Your task to perform on an android device: turn on showing notifications on the lock screen Image 0: 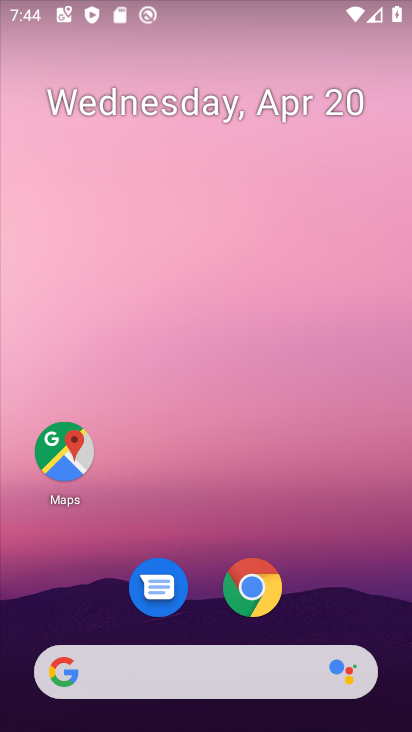
Step 0: drag from (368, 587) to (344, 186)
Your task to perform on an android device: turn on showing notifications on the lock screen Image 1: 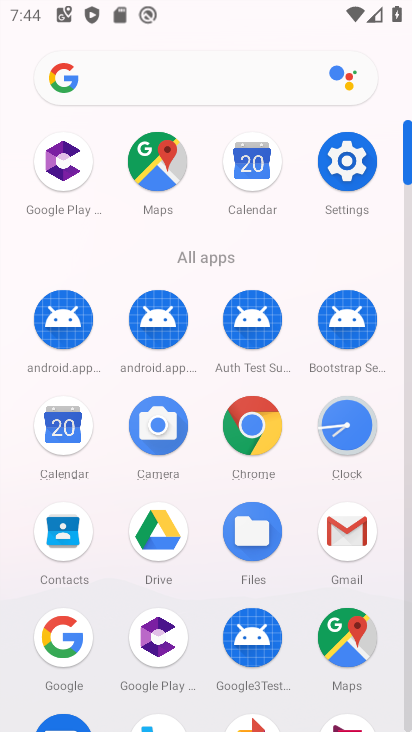
Step 1: click (354, 174)
Your task to perform on an android device: turn on showing notifications on the lock screen Image 2: 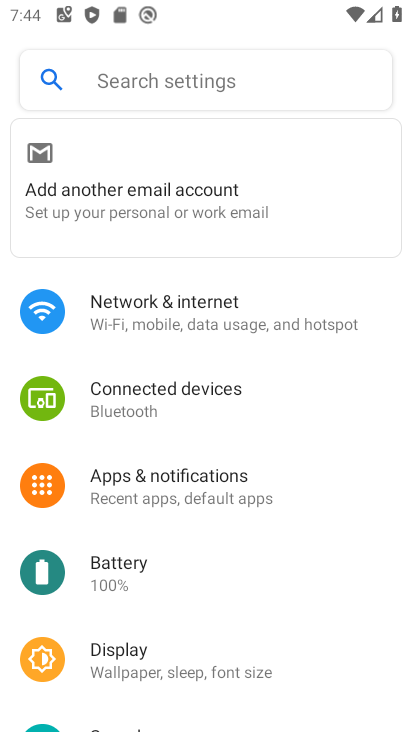
Step 2: drag from (334, 599) to (332, 428)
Your task to perform on an android device: turn on showing notifications on the lock screen Image 3: 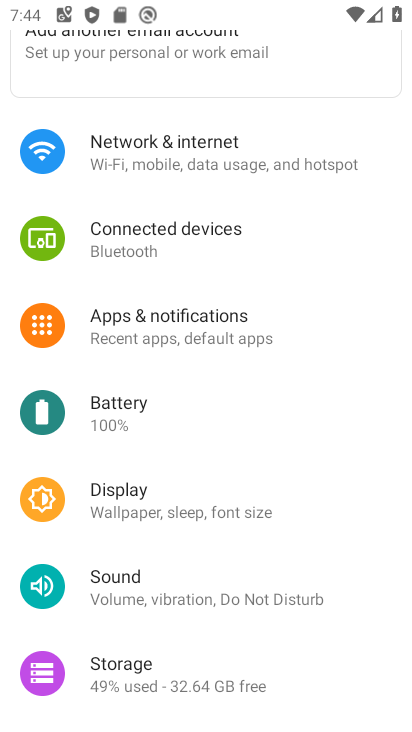
Step 3: drag from (348, 636) to (363, 436)
Your task to perform on an android device: turn on showing notifications on the lock screen Image 4: 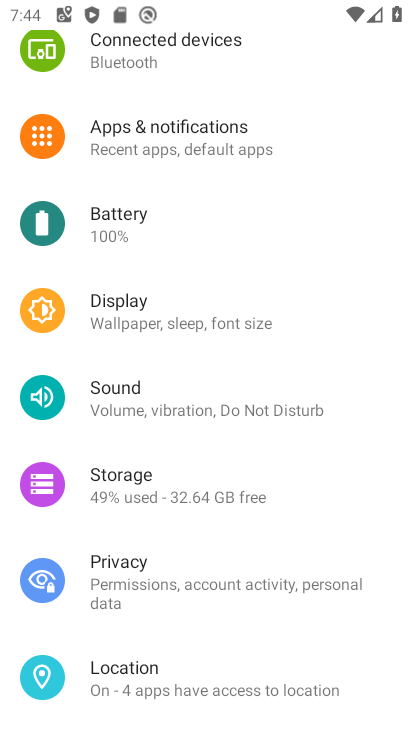
Step 4: drag from (371, 633) to (362, 425)
Your task to perform on an android device: turn on showing notifications on the lock screen Image 5: 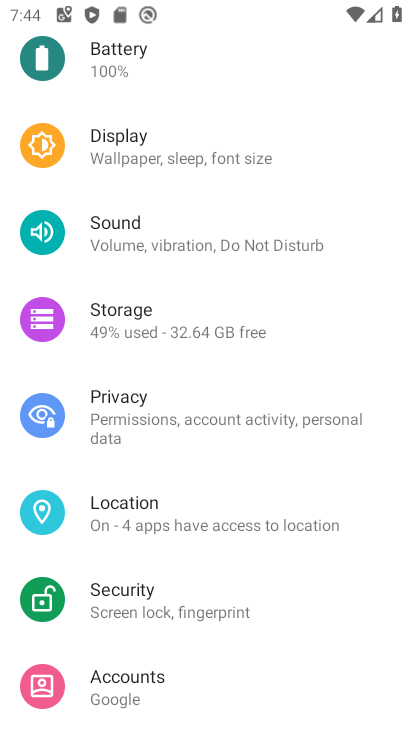
Step 5: drag from (337, 630) to (349, 432)
Your task to perform on an android device: turn on showing notifications on the lock screen Image 6: 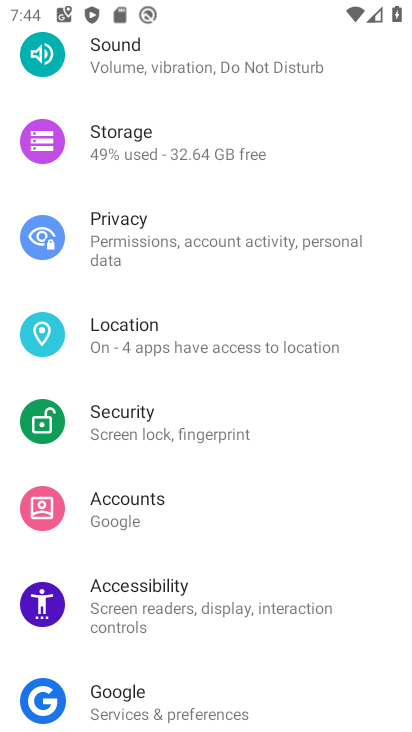
Step 6: drag from (357, 649) to (367, 476)
Your task to perform on an android device: turn on showing notifications on the lock screen Image 7: 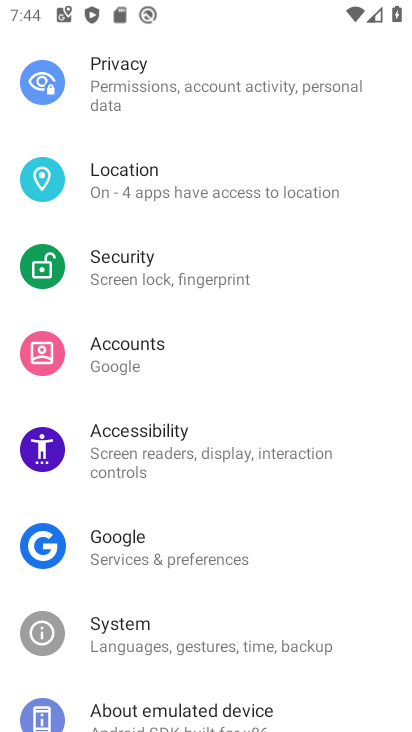
Step 7: drag from (374, 677) to (385, 451)
Your task to perform on an android device: turn on showing notifications on the lock screen Image 8: 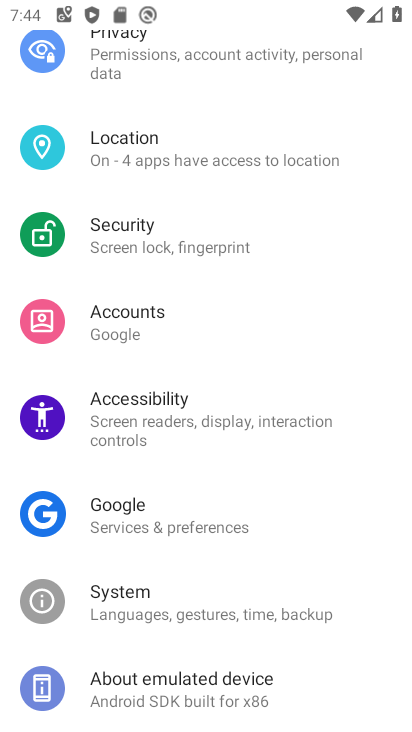
Step 8: drag from (383, 260) to (381, 445)
Your task to perform on an android device: turn on showing notifications on the lock screen Image 9: 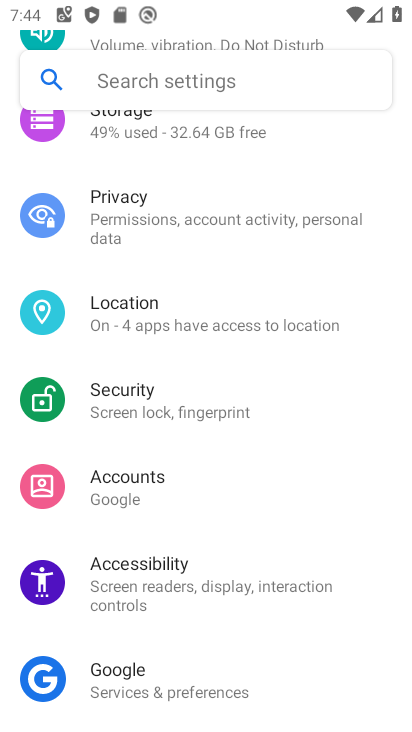
Step 9: drag from (379, 182) to (364, 405)
Your task to perform on an android device: turn on showing notifications on the lock screen Image 10: 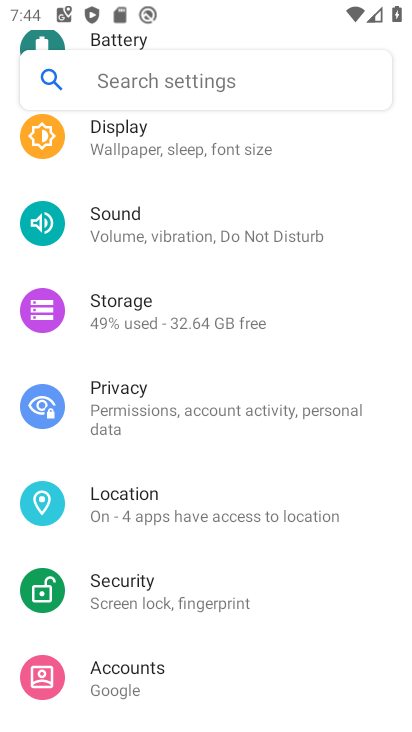
Step 10: drag from (359, 175) to (355, 395)
Your task to perform on an android device: turn on showing notifications on the lock screen Image 11: 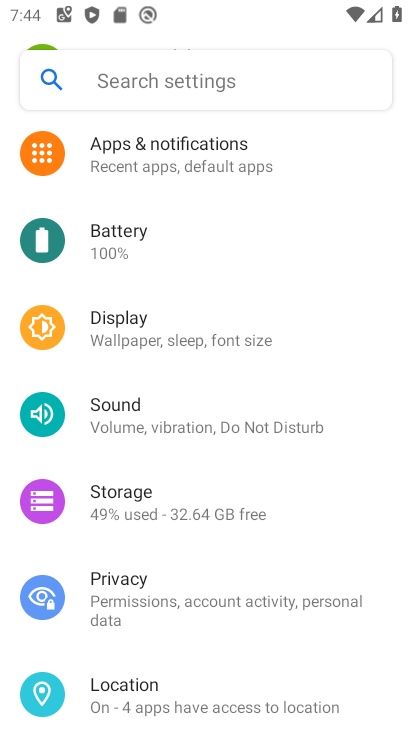
Step 11: drag from (373, 201) to (376, 355)
Your task to perform on an android device: turn on showing notifications on the lock screen Image 12: 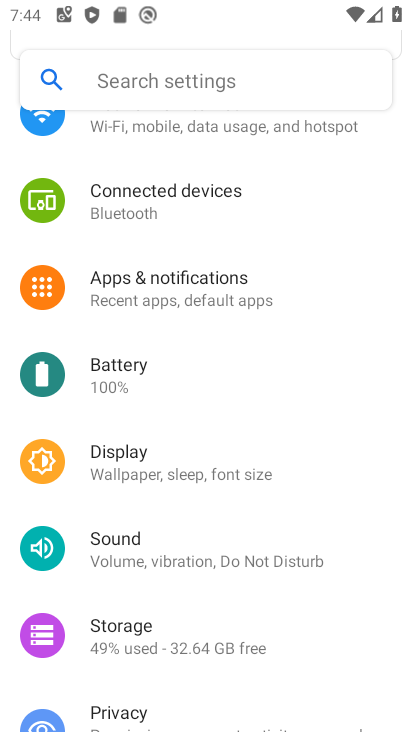
Step 12: click (224, 290)
Your task to perform on an android device: turn on showing notifications on the lock screen Image 13: 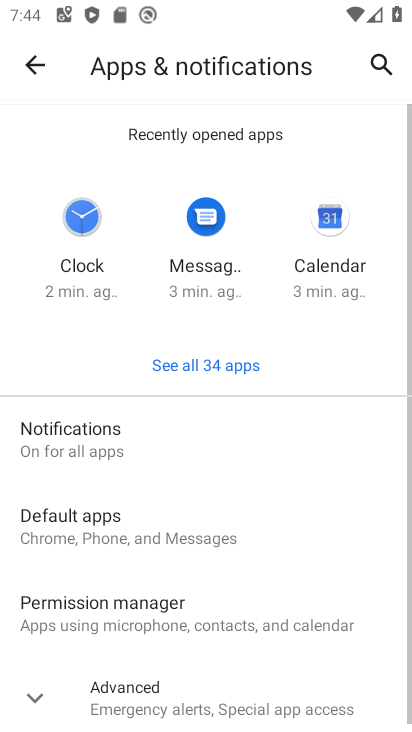
Step 13: drag from (299, 514) to (298, 293)
Your task to perform on an android device: turn on showing notifications on the lock screen Image 14: 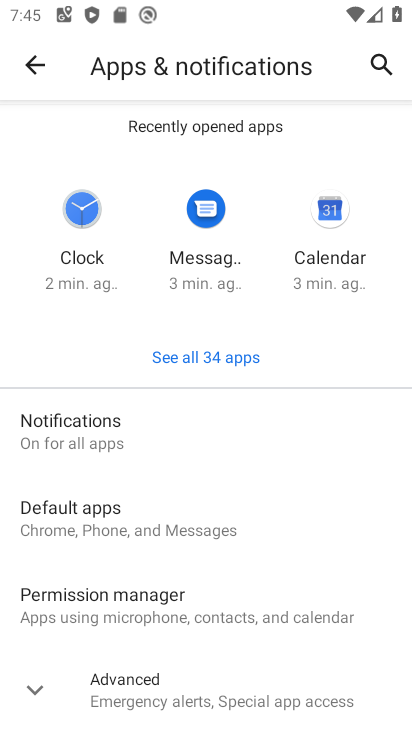
Step 14: click (64, 434)
Your task to perform on an android device: turn on showing notifications on the lock screen Image 15: 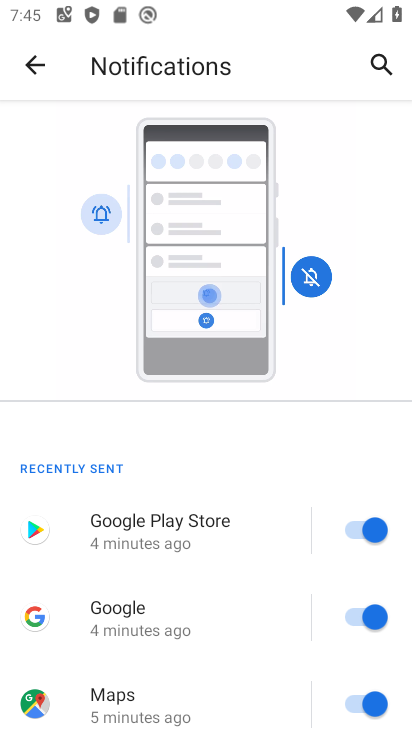
Step 15: drag from (254, 573) to (258, 367)
Your task to perform on an android device: turn on showing notifications on the lock screen Image 16: 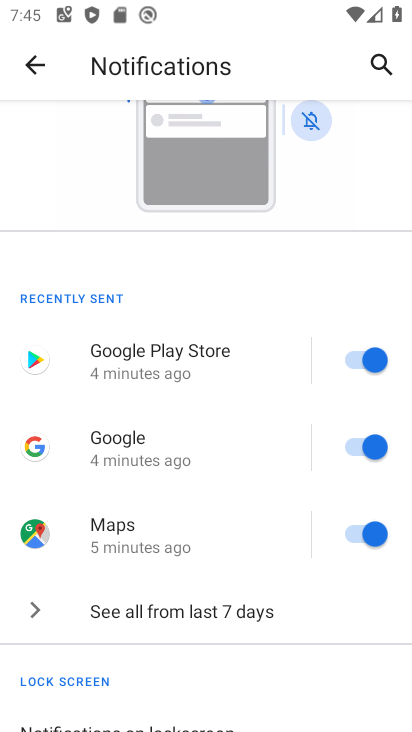
Step 16: drag from (298, 641) to (290, 414)
Your task to perform on an android device: turn on showing notifications on the lock screen Image 17: 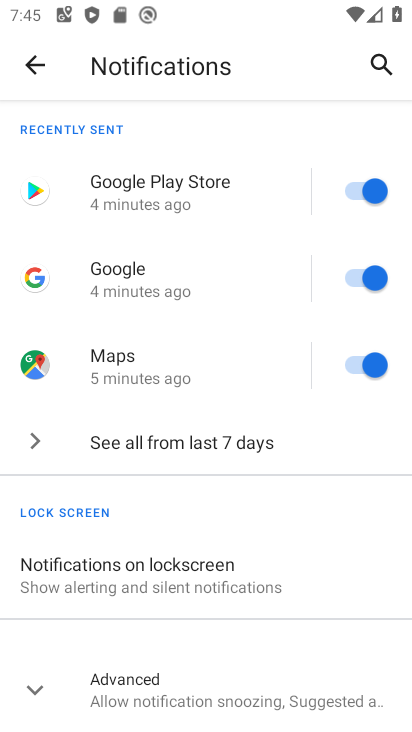
Step 17: drag from (282, 612) to (280, 399)
Your task to perform on an android device: turn on showing notifications on the lock screen Image 18: 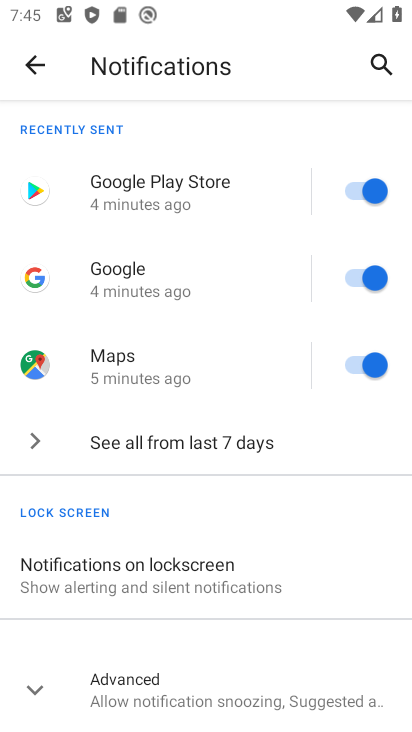
Step 18: click (213, 575)
Your task to perform on an android device: turn on showing notifications on the lock screen Image 19: 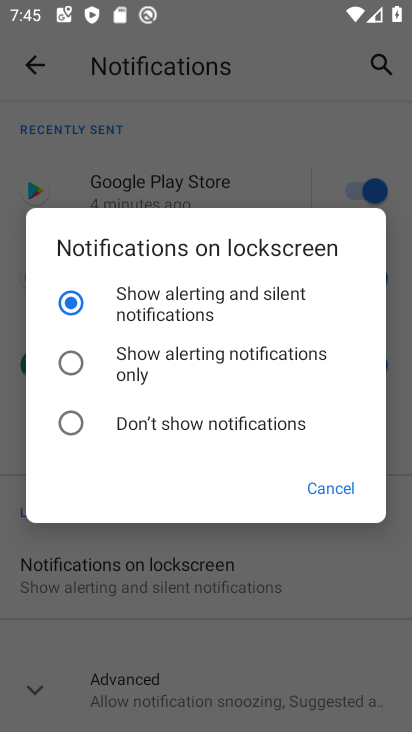
Step 19: task complete